Your task to perform on an android device: Go to Maps Image 0: 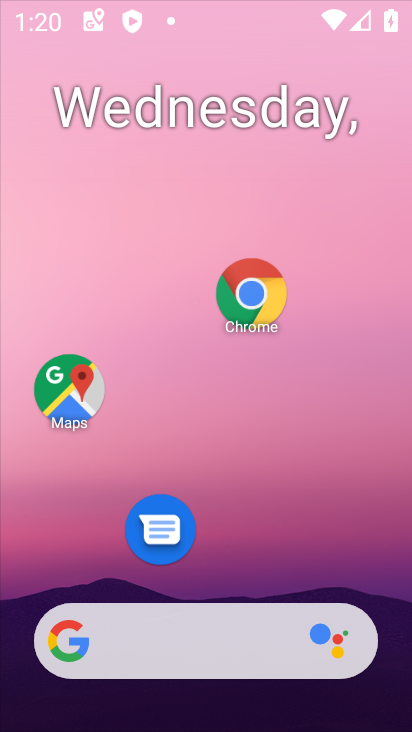
Step 0: click (298, 140)
Your task to perform on an android device: Go to Maps Image 1: 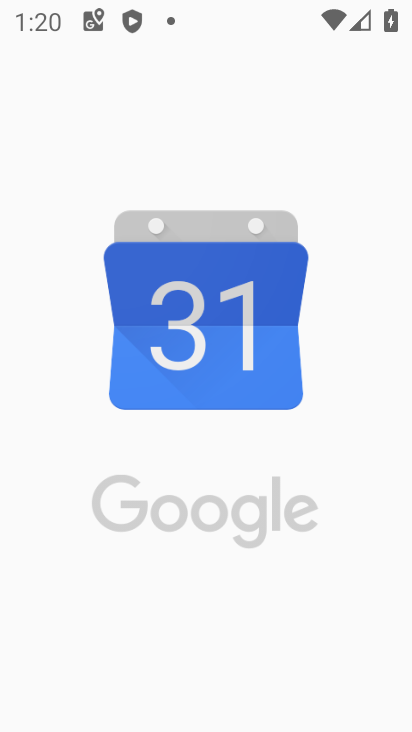
Step 1: drag from (215, 603) to (239, 132)
Your task to perform on an android device: Go to Maps Image 2: 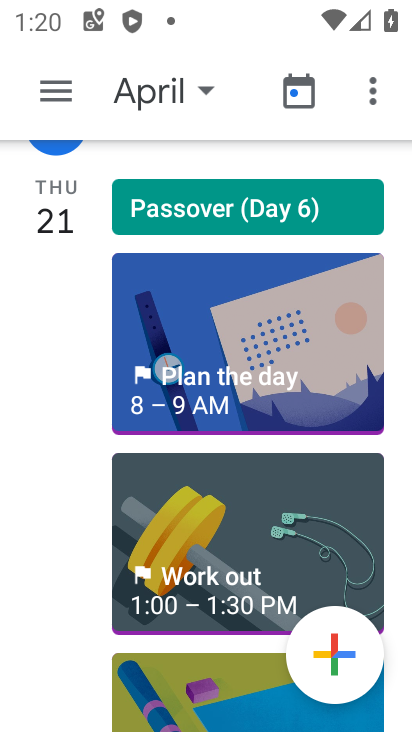
Step 2: press home button
Your task to perform on an android device: Go to Maps Image 3: 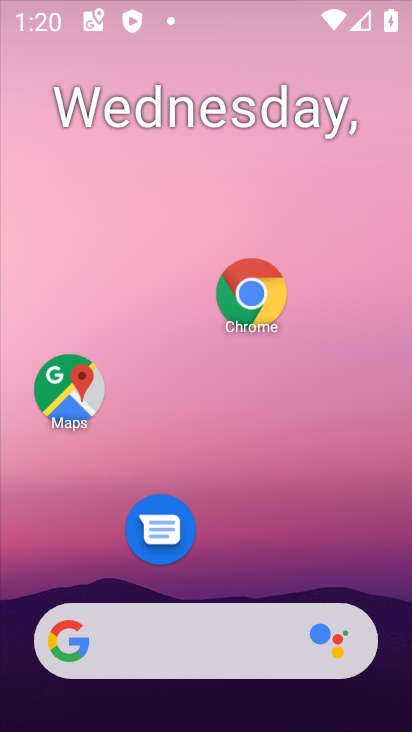
Step 3: drag from (254, 641) to (286, 211)
Your task to perform on an android device: Go to Maps Image 4: 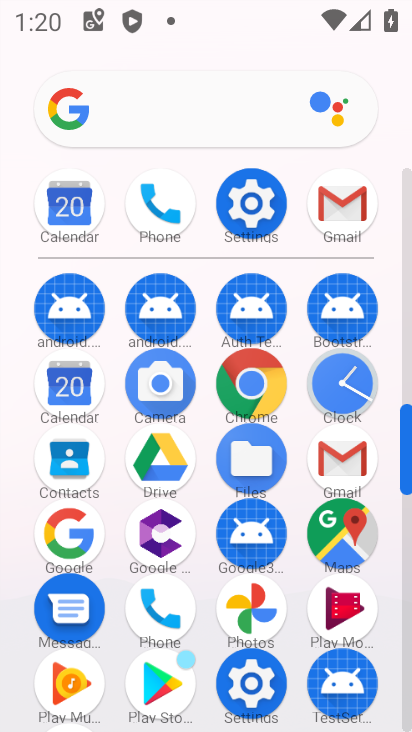
Step 4: click (349, 545)
Your task to perform on an android device: Go to Maps Image 5: 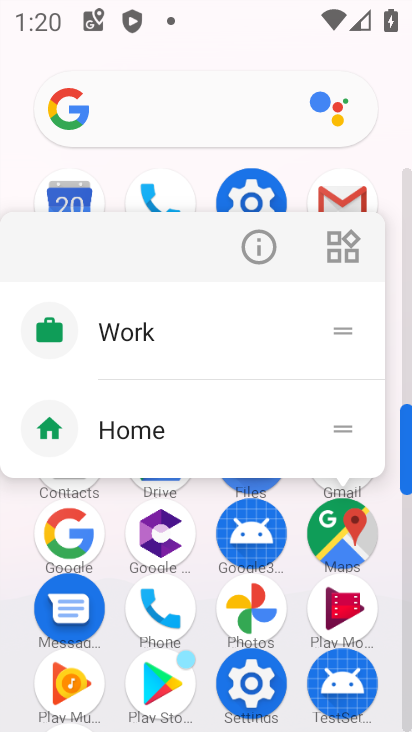
Step 5: click (356, 529)
Your task to perform on an android device: Go to Maps Image 6: 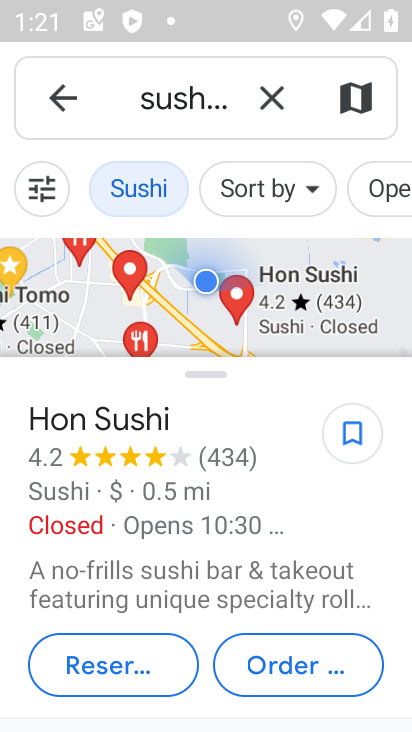
Step 6: task complete